Your task to perform on an android device: find photos in the google photos app Image 0: 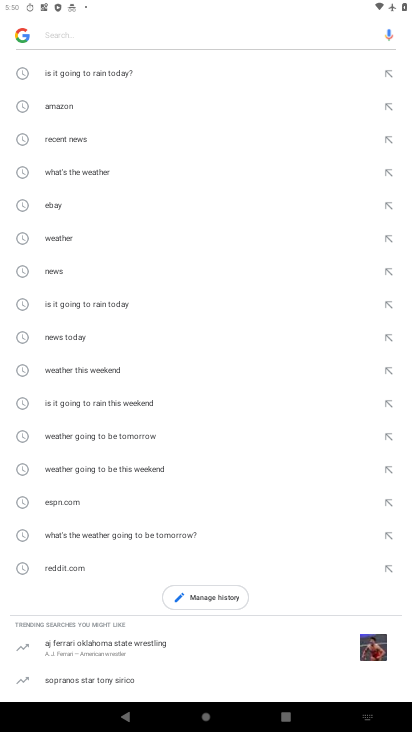
Step 0: press home button
Your task to perform on an android device: find photos in the google photos app Image 1: 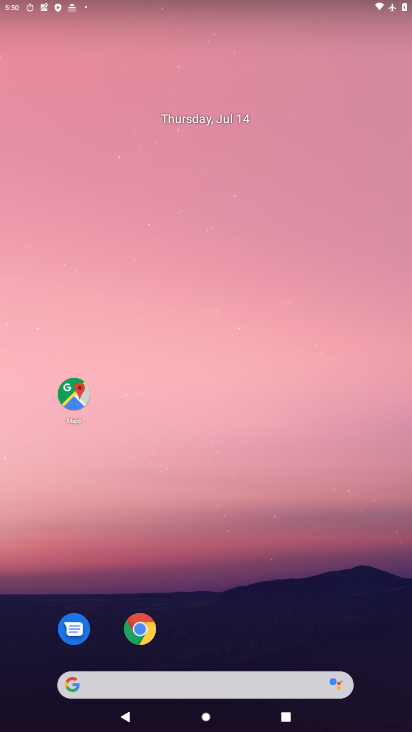
Step 1: drag from (221, 669) to (355, 0)
Your task to perform on an android device: find photos in the google photos app Image 2: 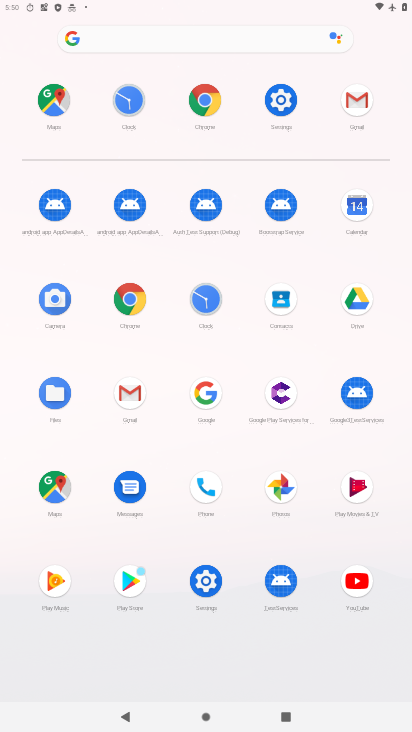
Step 2: click (278, 485)
Your task to perform on an android device: find photos in the google photos app Image 3: 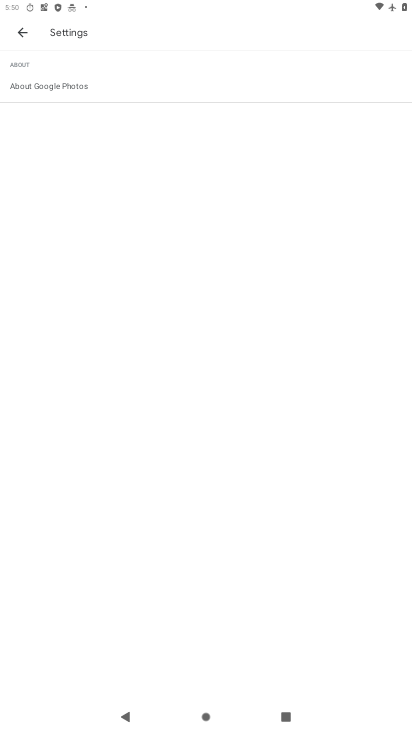
Step 3: task complete